Your task to perform on an android device: check google app version Image 0: 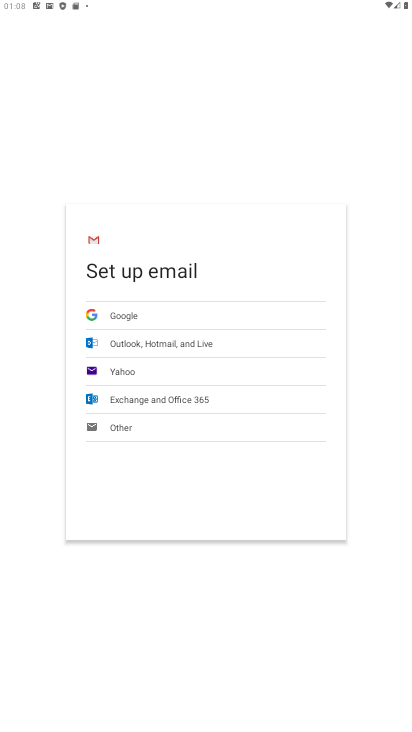
Step 0: press home button
Your task to perform on an android device: check google app version Image 1: 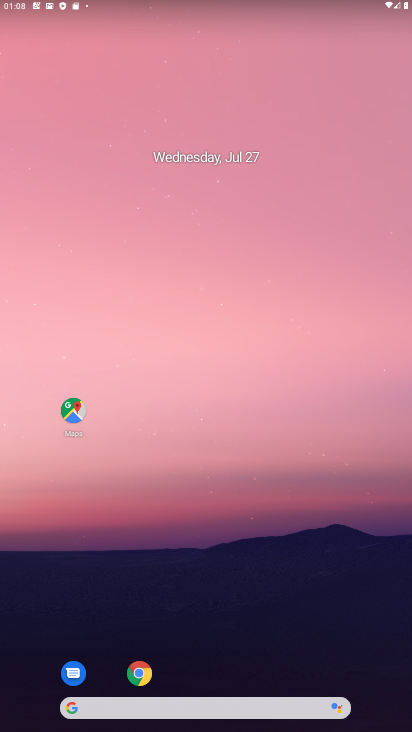
Step 1: drag from (208, 686) to (223, 218)
Your task to perform on an android device: check google app version Image 2: 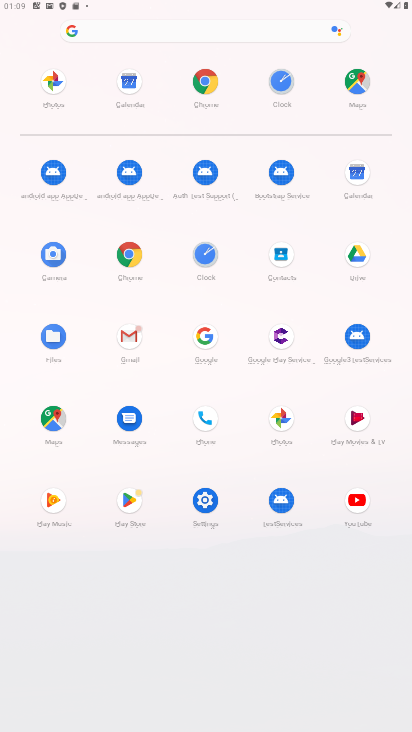
Step 2: click (206, 332)
Your task to perform on an android device: check google app version Image 3: 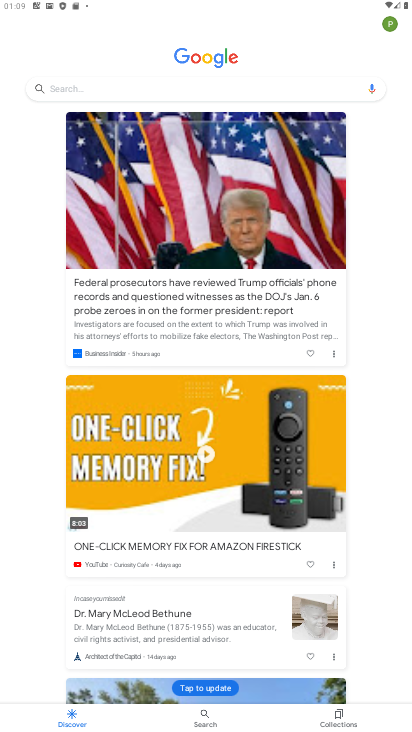
Step 3: click (391, 28)
Your task to perform on an android device: check google app version Image 4: 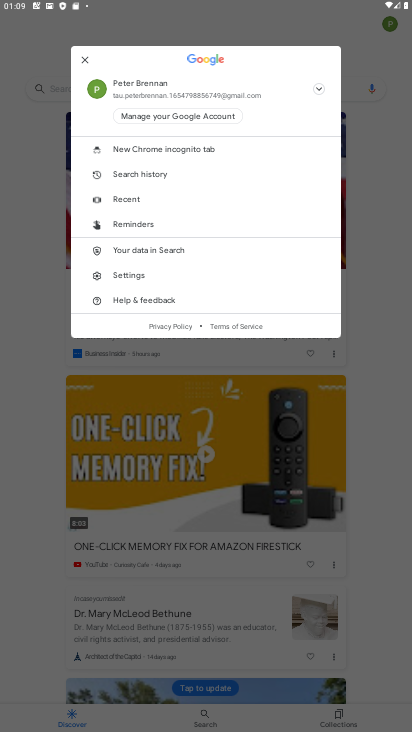
Step 4: click (131, 275)
Your task to perform on an android device: check google app version Image 5: 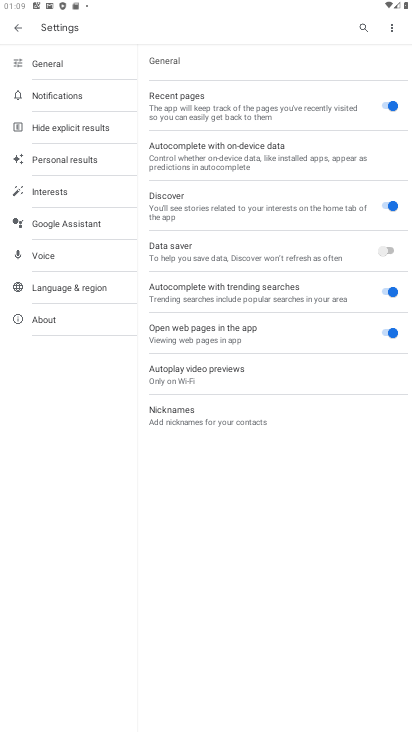
Step 5: click (36, 320)
Your task to perform on an android device: check google app version Image 6: 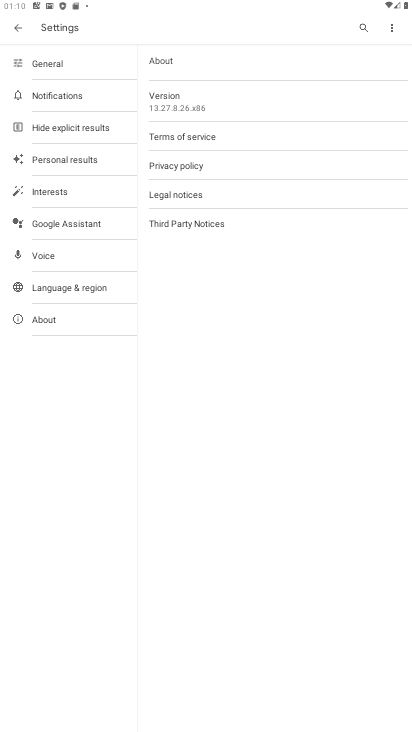
Step 6: task complete